Your task to perform on an android device: Go to Android settings Image 0: 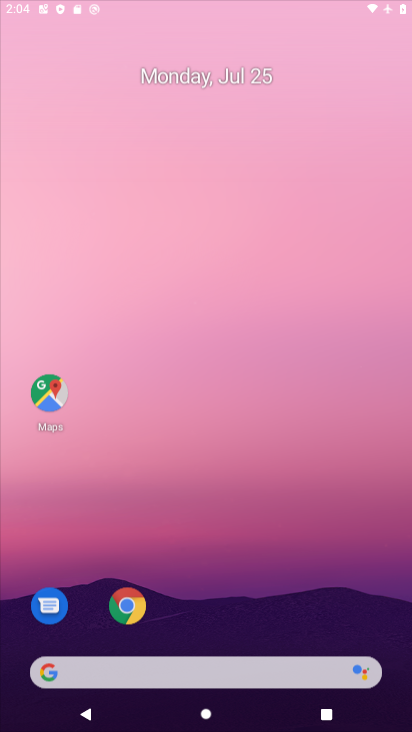
Step 0: click (279, 105)
Your task to perform on an android device: Go to Android settings Image 1: 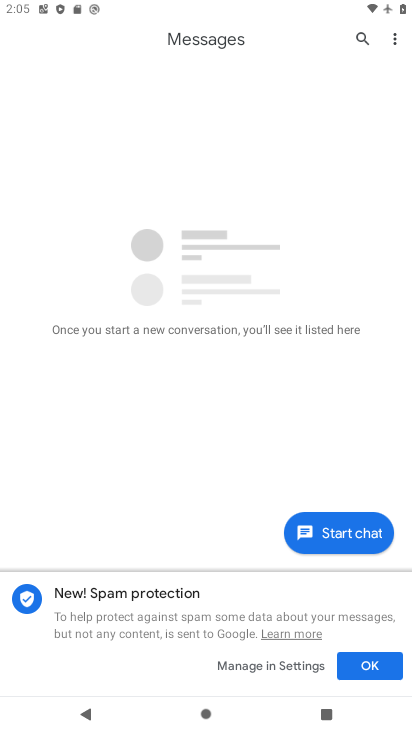
Step 1: press home button
Your task to perform on an android device: Go to Android settings Image 2: 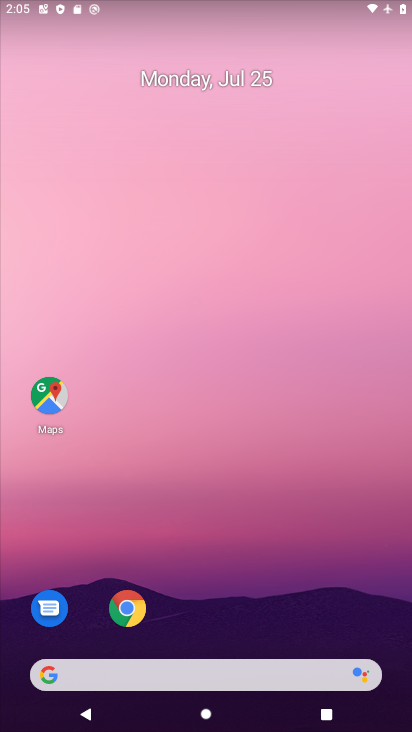
Step 2: drag from (227, 606) to (260, 39)
Your task to perform on an android device: Go to Android settings Image 3: 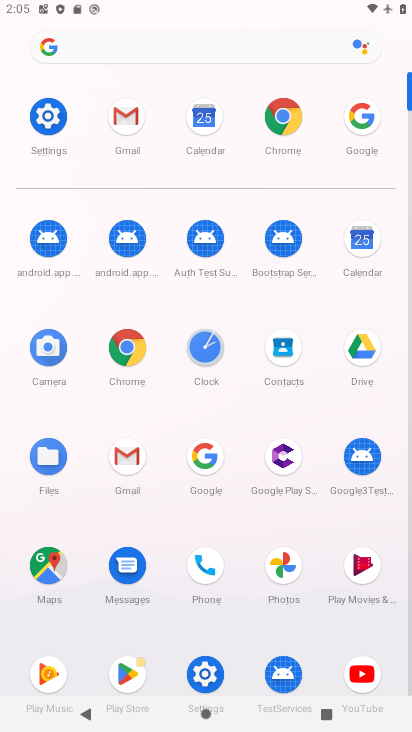
Step 3: click (56, 108)
Your task to perform on an android device: Go to Android settings Image 4: 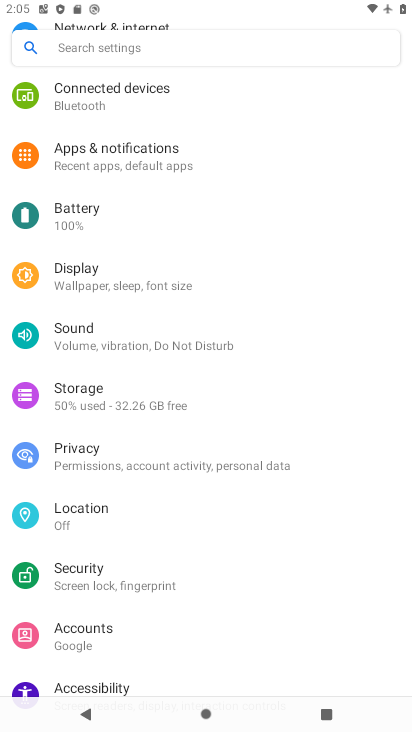
Step 4: drag from (135, 533) to (217, 66)
Your task to perform on an android device: Go to Android settings Image 5: 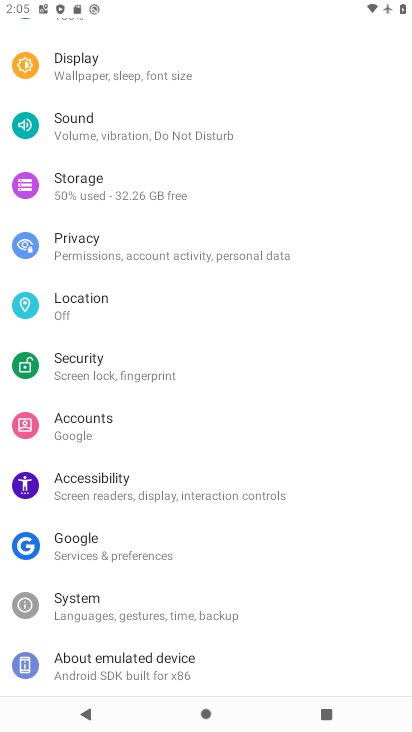
Step 5: click (191, 657)
Your task to perform on an android device: Go to Android settings Image 6: 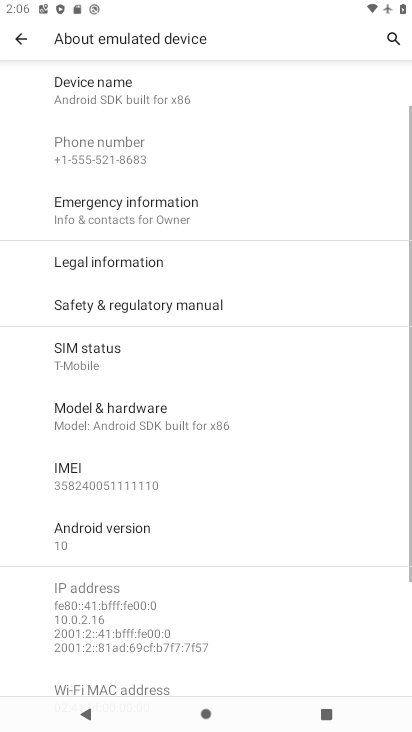
Step 6: click (152, 529)
Your task to perform on an android device: Go to Android settings Image 7: 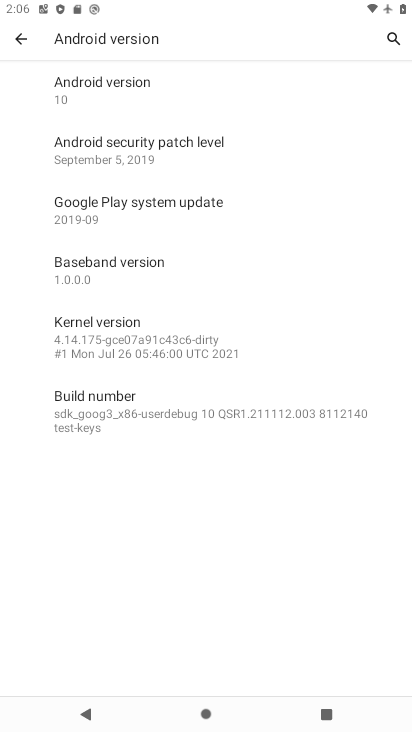
Step 7: click (105, 91)
Your task to perform on an android device: Go to Android settings Image 8: 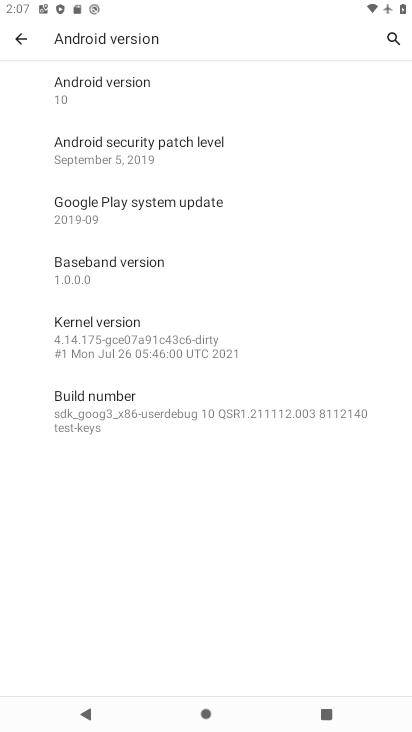
Step 8: task complete